Your task to perform on an android device: Open the calendar and show me this week's events Image 0: 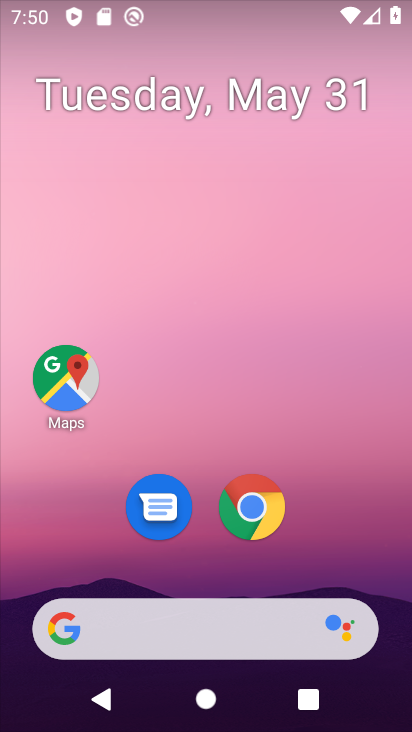
Step 0: drag from (344, 578) to (302, 9)
Your task to perform on an android device: Open the calendar and show me this week's events Image 1: 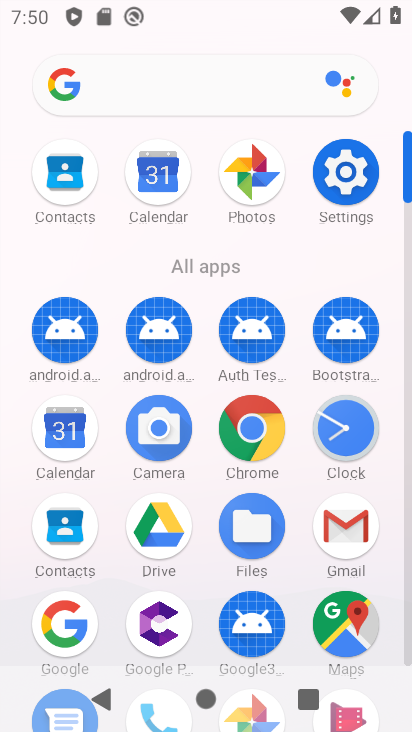
Step 1: click (146, 174)
Your task to perform on an android device: Open the calendar and show me this week's events Image 2: 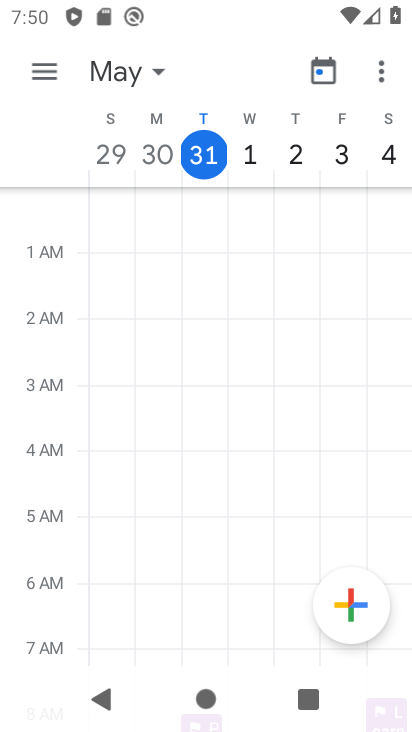
Step 2: task complete